Your task to perform on an android device: Open calendar and show me the second week of next month Image 0: 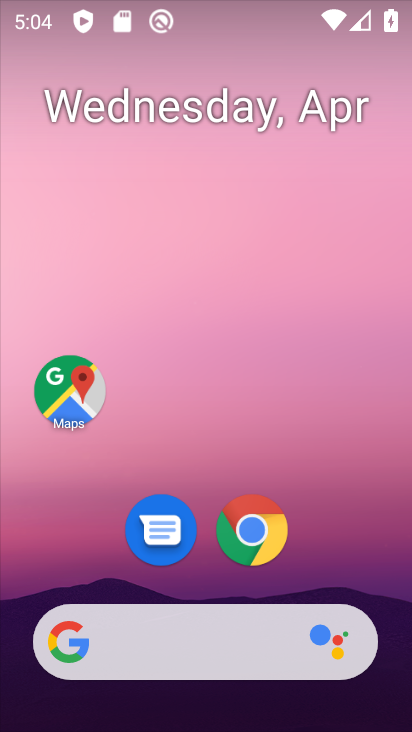
Step 0: drag from (213, 501) to (239, 3)
Your task to perform on an android device: Open calendar and show me the second week of next month Image 1: 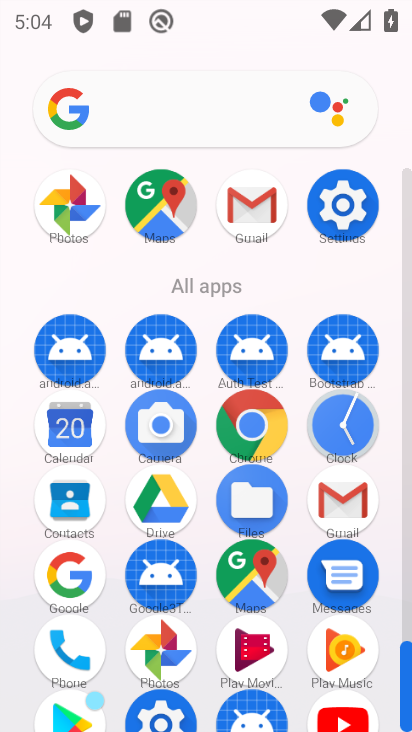
Step 1: click (72, 429)
Your task to perform on an android device: Open calendar and show me the second week of next month Image 2: 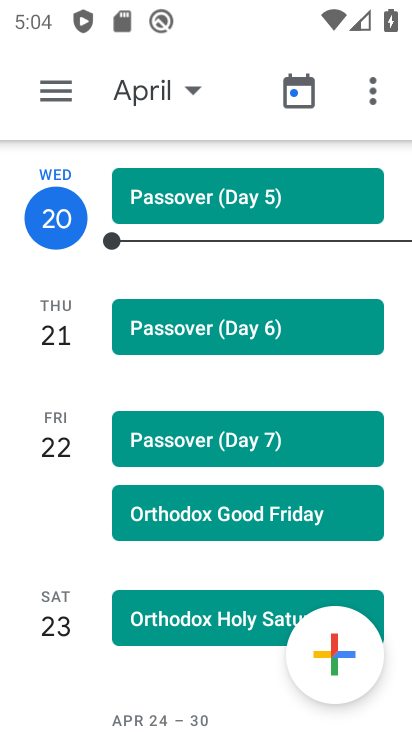
Step 2: click (194, 91)
Your task to perform on an android device: Open calendar and show me the second week of next month Image 3: 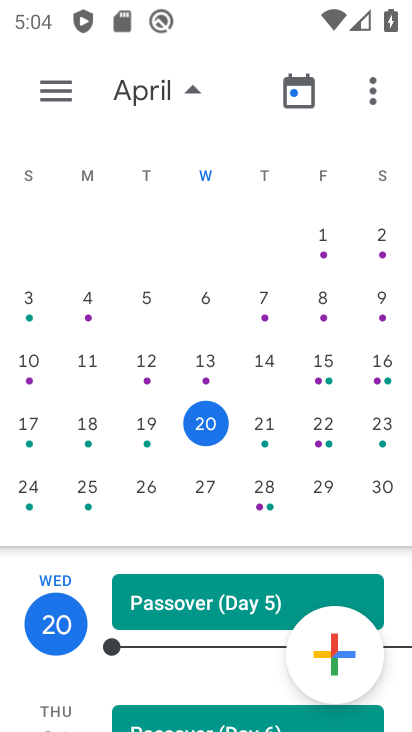
Step 3: drag from (361, 338) to (6, 261)
Your task to perform on an android device: Open calendar and show me the second week of next month Image 4: 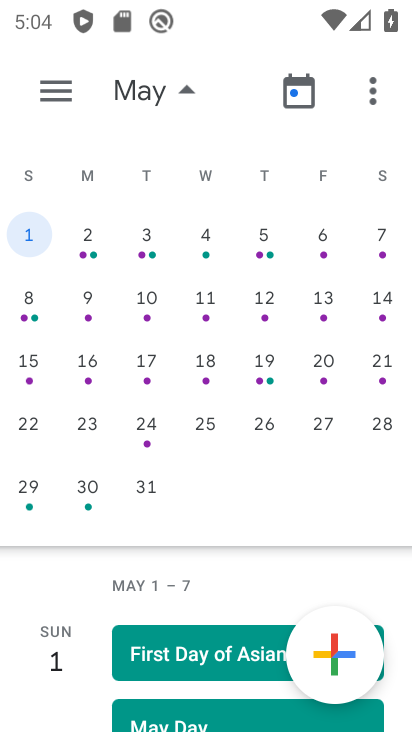
Step 4: click (92, 297)
Your task to perform on an android device: Open calendar and show me the second week of next month Image 5: 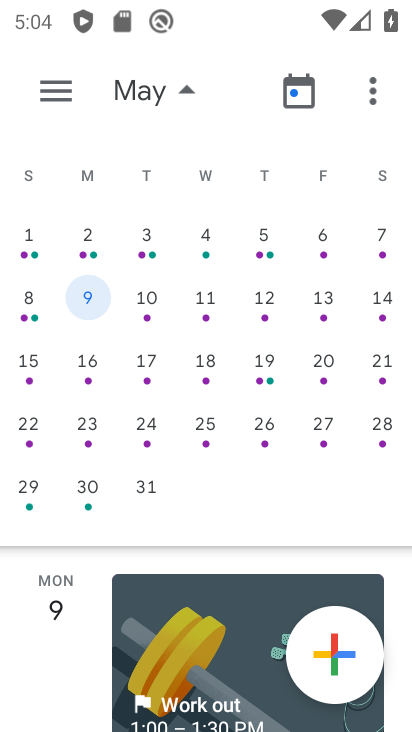
Step 5: click (55, 98)
Your task to perform on an android device: Open calendar and show me the second week of next month Image 6: 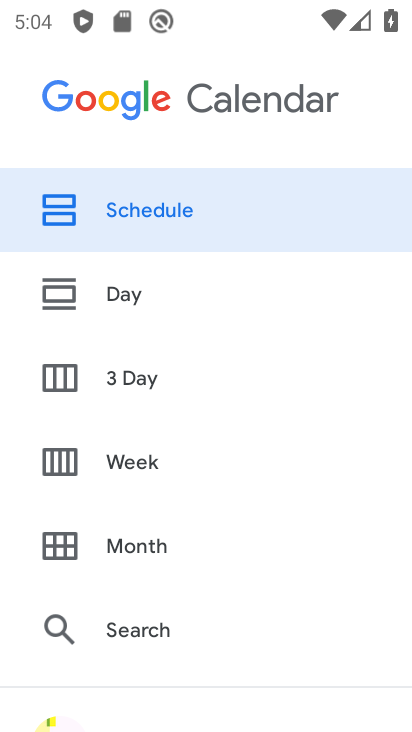
Step 6: click (131, 456)
Your task to perform on an android device: Open calendar and show me the second week of next month Image 7: 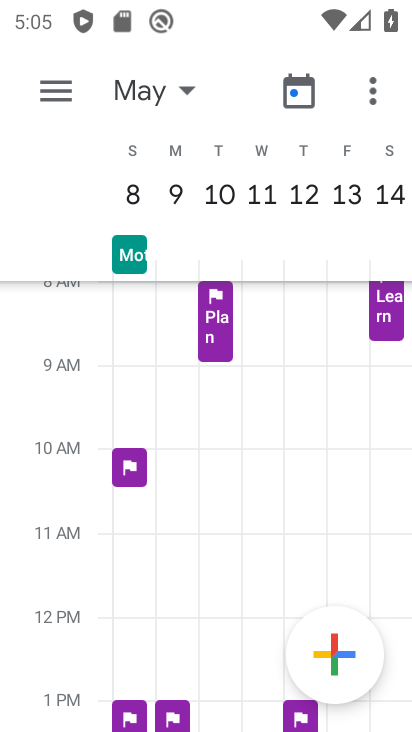
Step 7: task complete